Your task to perform on an android device: turn off location Image 0: 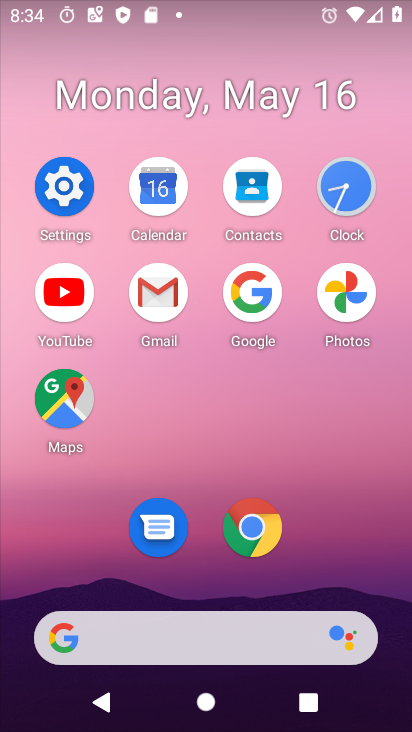
Step 0: click (73, 194)
Your task to perform on an android device: turn off location Image 1: 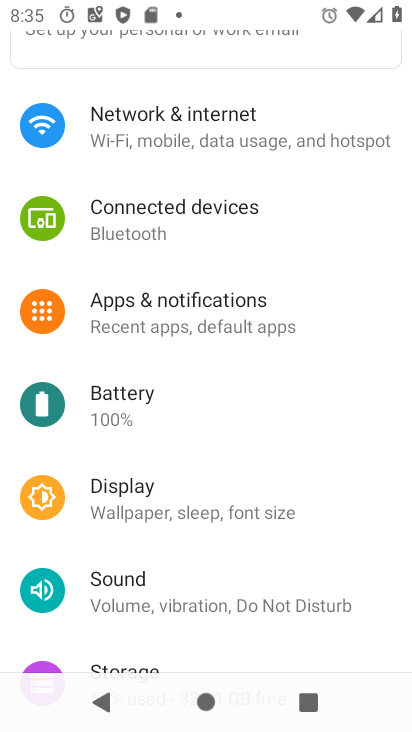
Step 1: drag from (302, 571) to (332, 231)
Your task to perform on an android device: turn off location Image 2: 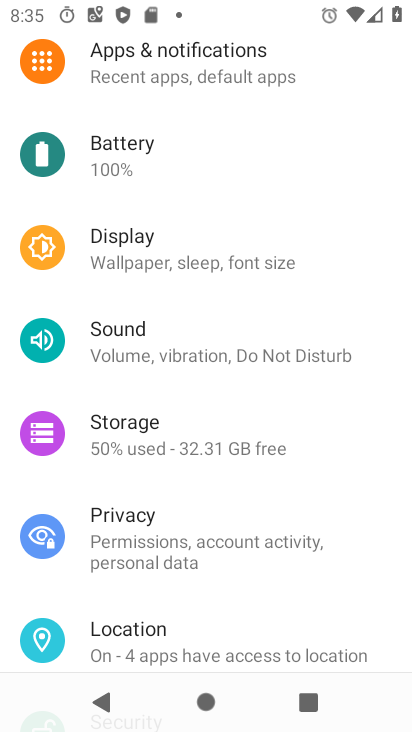
Step 2: drag from (241, 593) to (288, 263)
Your task to perform on an android device: turn off location Image 3: 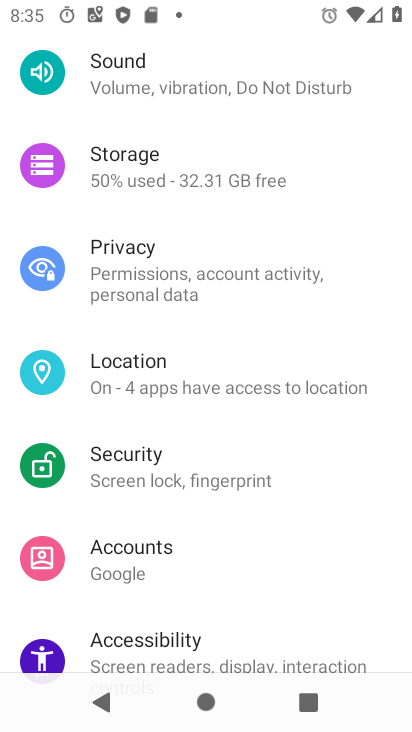
Step 3: click (251, 366)
Your task to perform on an android device: turn off location Image 4: 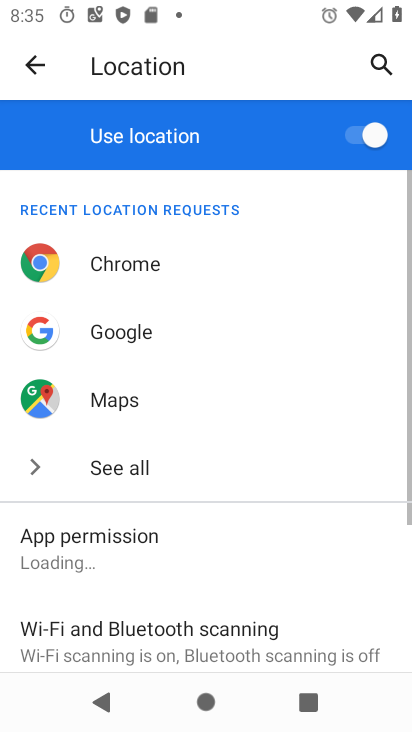
Step 4: click (370, 130)
Your task to perform on an android device: turn off location Image 5: 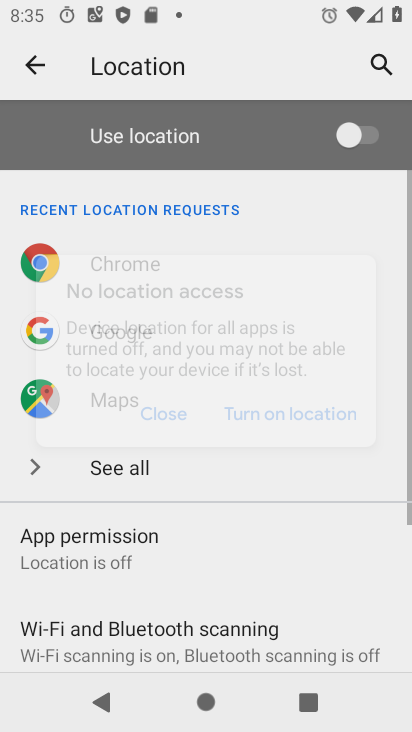
Step 5: task complete